Your task to perform on an android device: change keyboard looks Image 0: 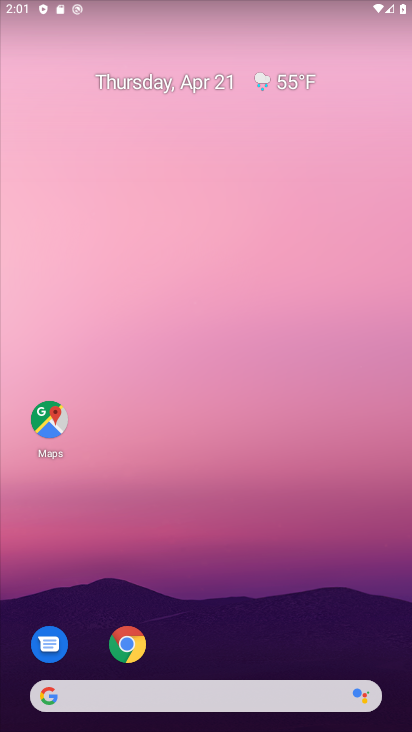
Step 0: drag from (352, 635) to (317, 6)
Your task to perform on an android device: change keyboard looks Image 1: 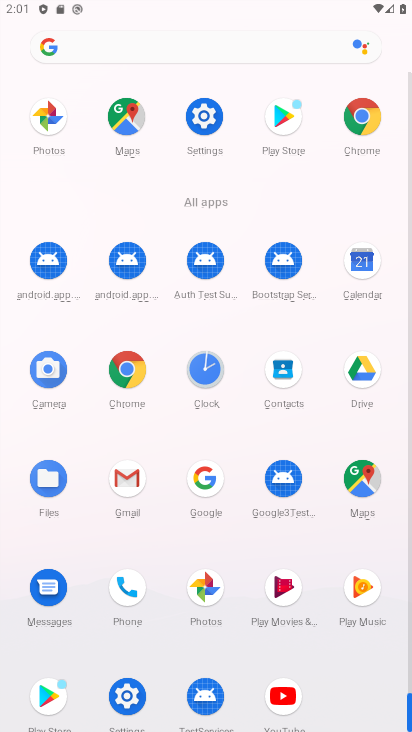
Step 1: click (134, 694)
Your task to perform on an android device: change keyboard looks Image 2: 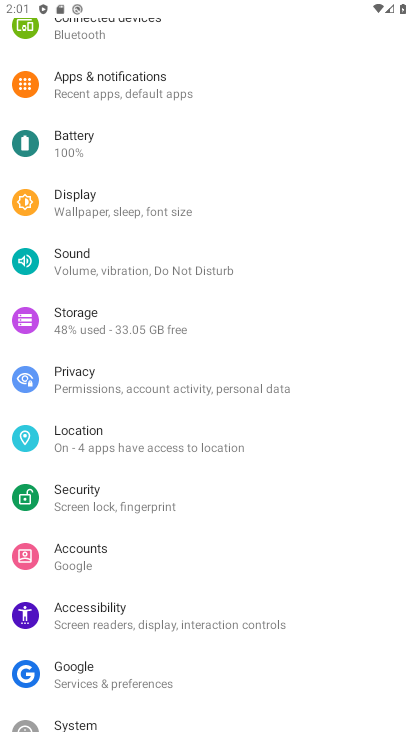
Step 2: drag from (256, 610) to (228, 14)
Your task to perform on an android device: change keyboard looks Image 3: 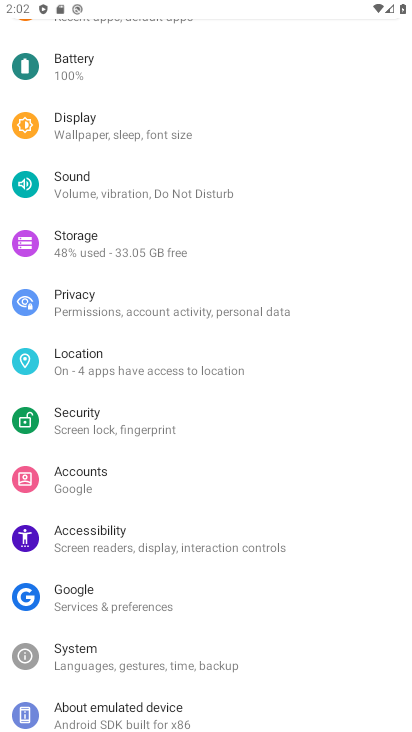
Step 3: click (137, 659)
Your task to perform on an android device: change keyboard looks Image 4: 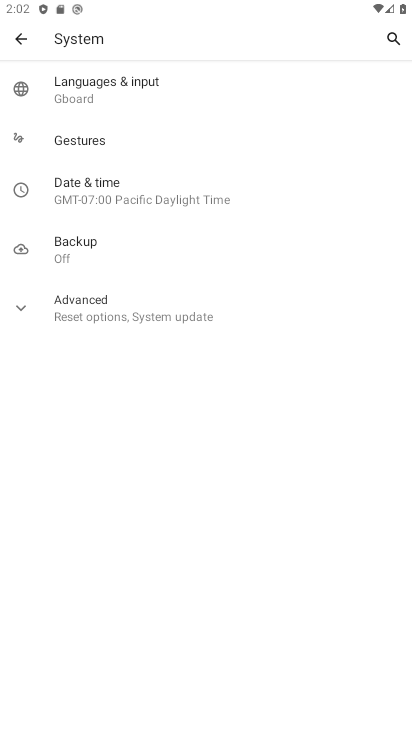
Step 4: click (83, 89)
Your task to perform on an android device: change keyboard looks Image 5: 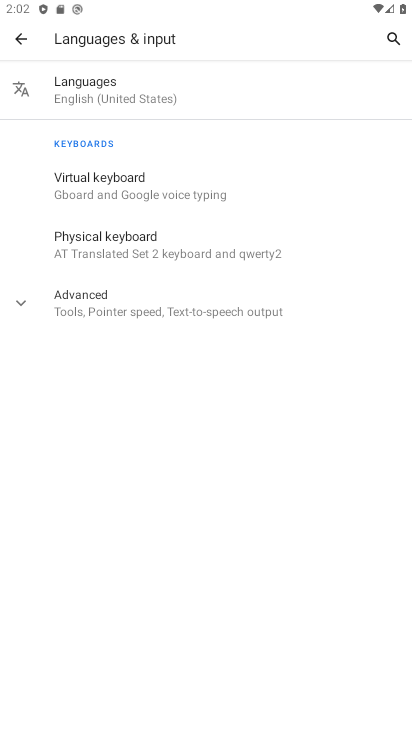
Step 5: click (79, 195)
Your task to perform on an android device: change keyboard looks Image 6: 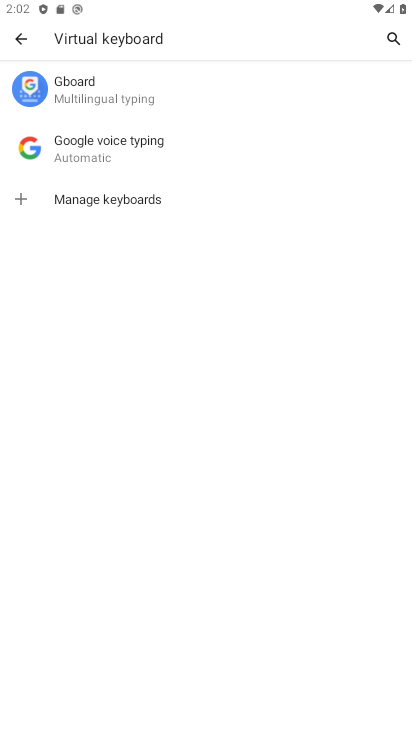
Step 6: click (103, 95)
Your task to perform on an android device: change keyboard looks Image 7: 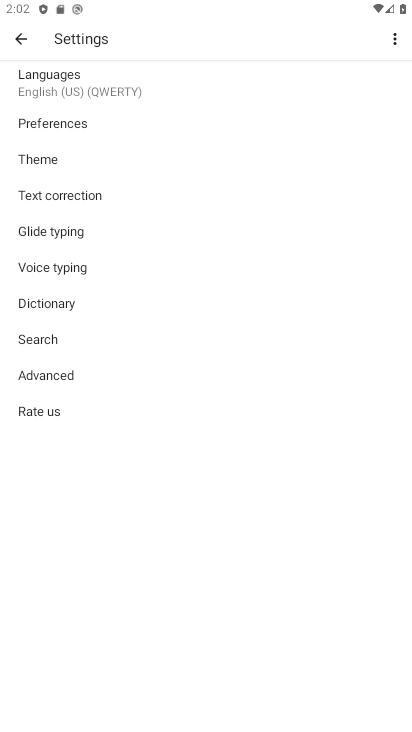
Step 7: click (54, 155)
Your task to perform on an android device: change keyboard looks Image 8: 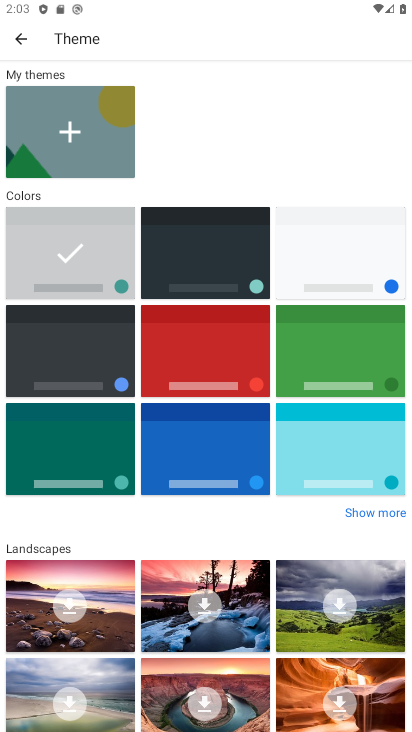
Step 8: click (219, 351)
Your task to perform on an android device: change keyboard looks Image 9: 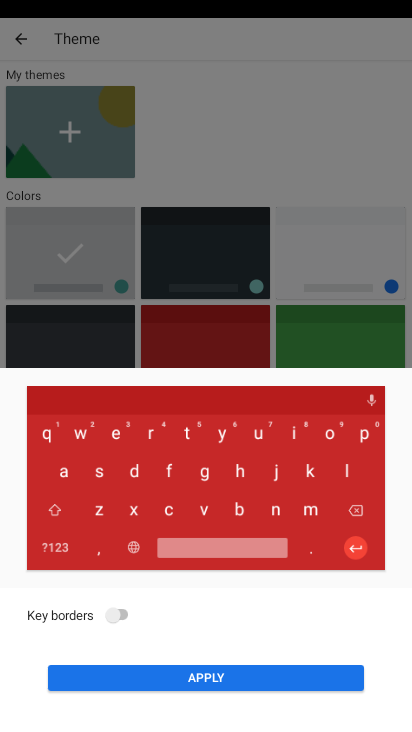
Step 9: click (244, 676)
Your task to perform on an android device: change keyboard looks Image 10: 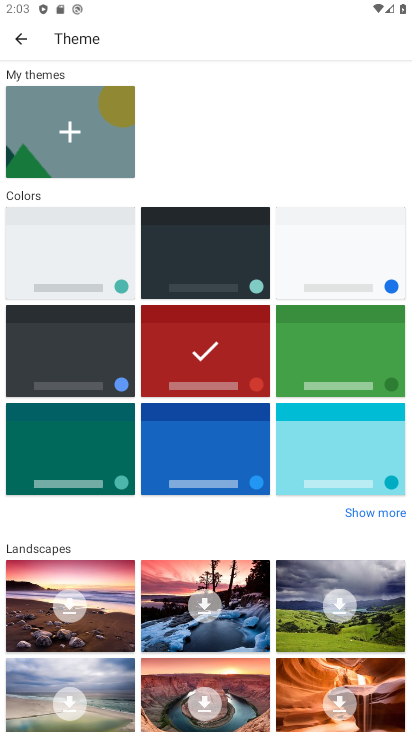
Step 10: task complete